Your task to perform on an android device: Go to eBay Image 0: 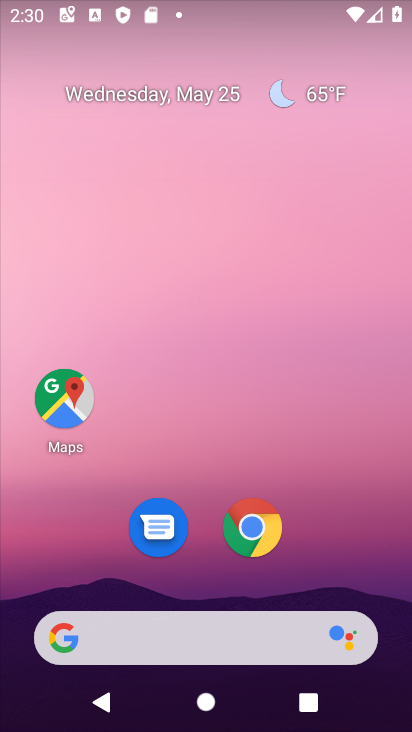
Step 0: drag from (315, 588) to (408, 35)
Your task to perform on an android device: Go to eBay Image 1: 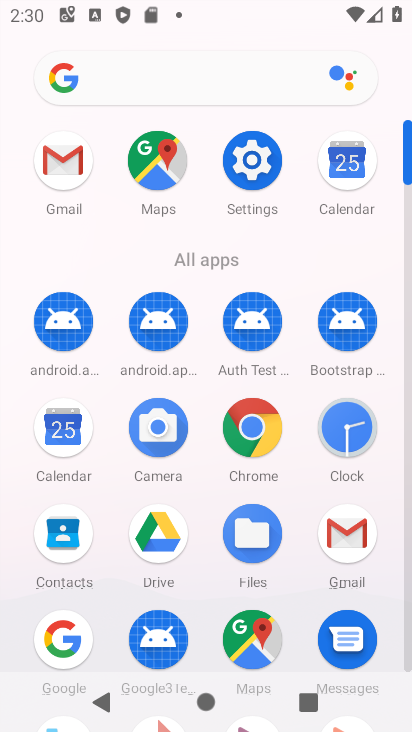
Step 1: click (247, 418)
Your task to perform on an android device: Go to eBay Image 2: 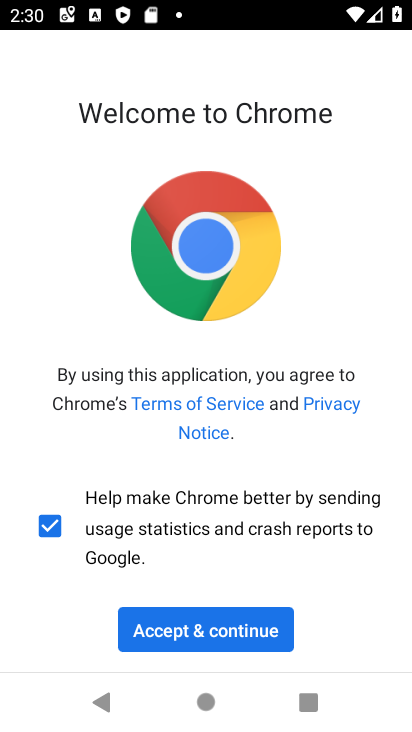
Step 2: click (231, 632)
Your task to perform on an android device: Go to eBay Image 3: 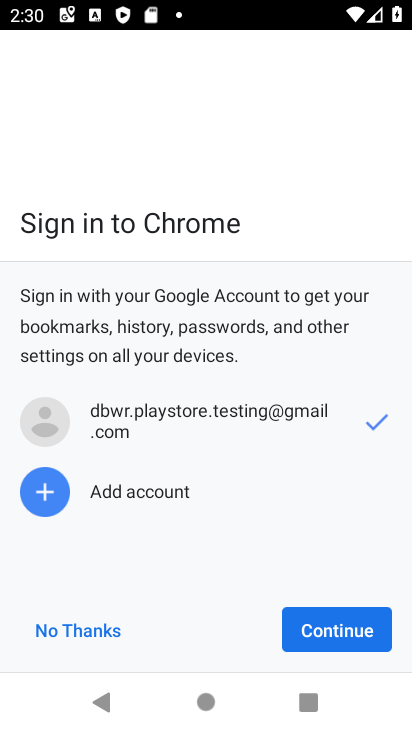
Step 3: click (100, 622)
Your task to perform on an android device: Go to eBay Image 4: 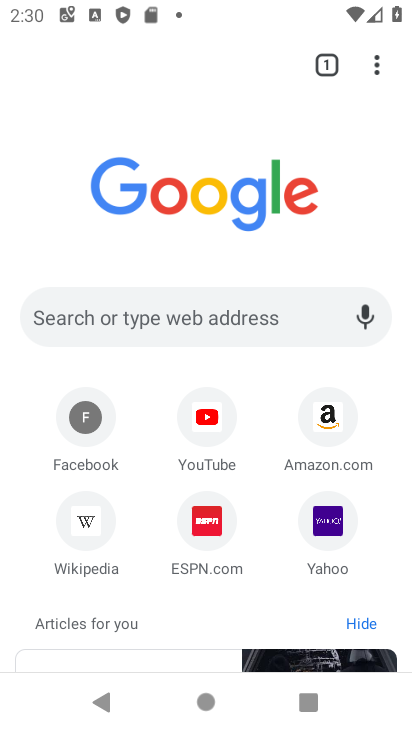
Step 4: click (184, 310)
Your task to perform on an android device: Go to eBay Image 5: 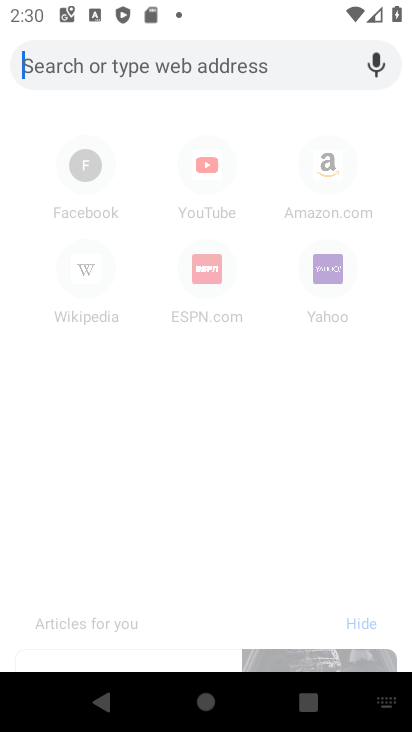
Step 5: type "ebay"
Your task to perform on an android device: Go to eBay Image 6: 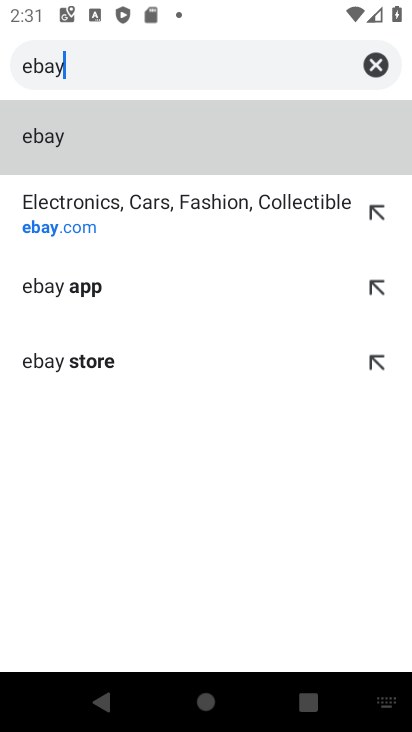
Step 6: click (108, 207)
Your task to perform on an android device: Go to eBay Image 7: 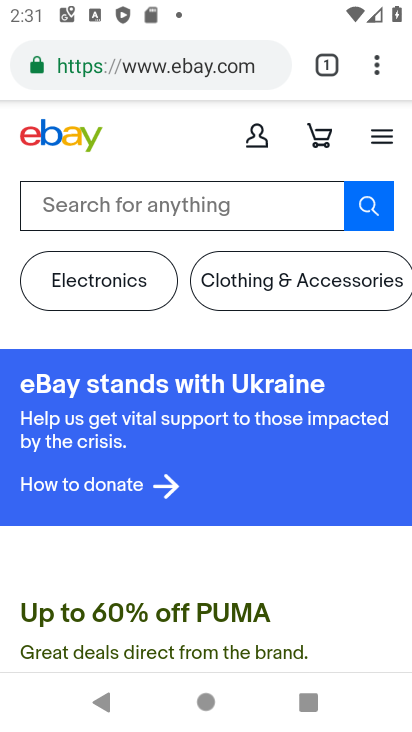
Step 7: task complete